Your task to perform on an android device: Search for Mexican restaurants on Maps Image 0: 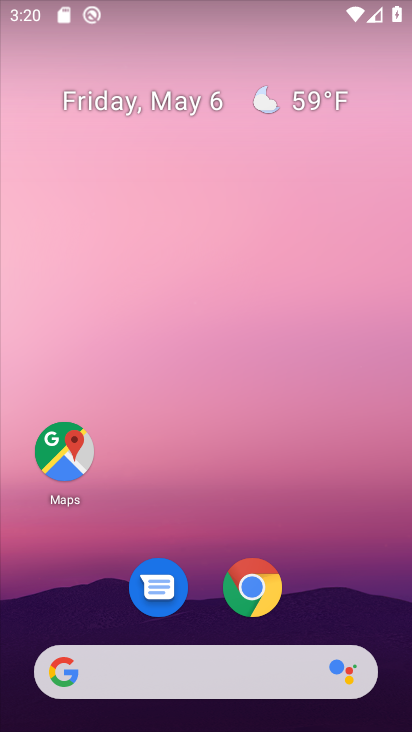
Step 0: drag from (200, 518) to (219, 56)
Your task to perform on an android device: Search for Mexican restaurants on Maps Image 1: 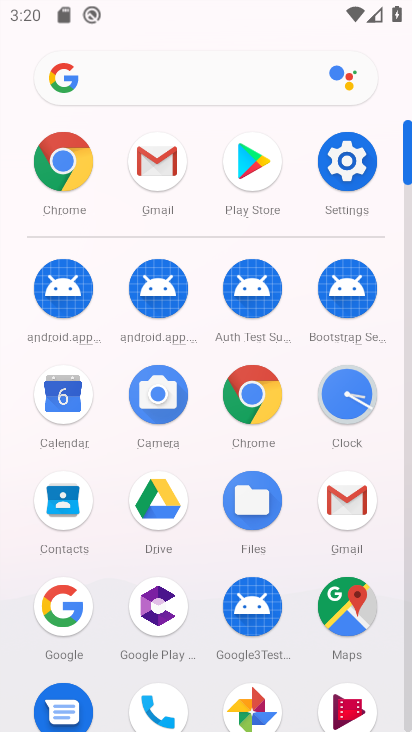
Step 1: click (336, 605)
Your task to perform on an android device: Search for Mexican restaurants on Maps Image 2: 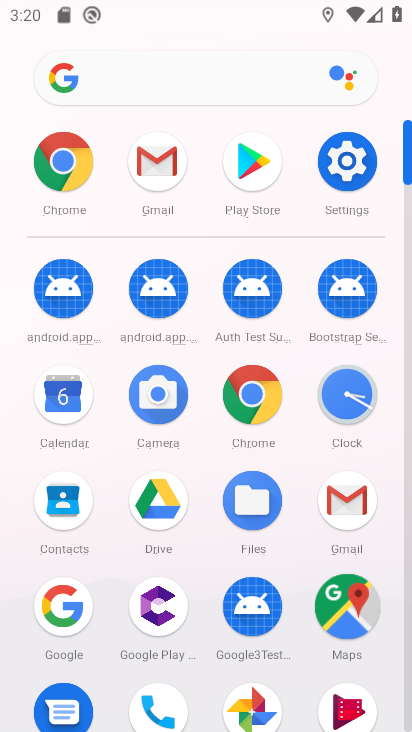
Step 2: click (336, 597)
Your task to perform on an android device: Search for Mexican restaurants on Maps Image 3: 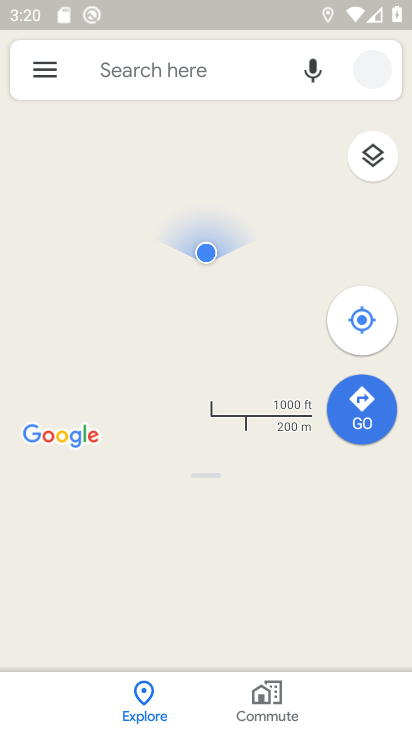
Step 3: click (175, 65)
Your task to perform on an android device: Search for Mexican restaurants on Maps Image 4: 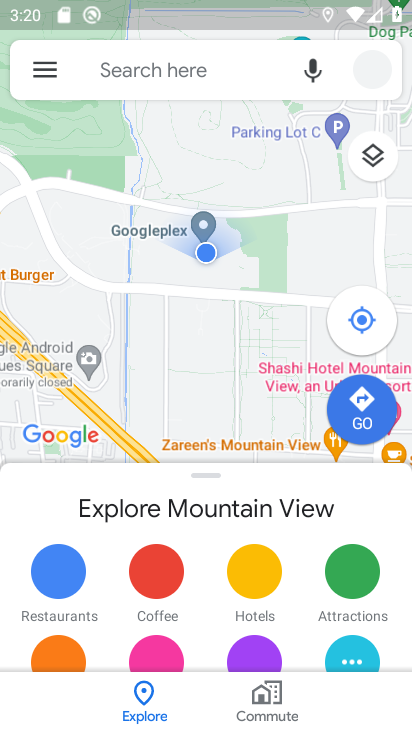
Step 4: click (178, 63)
Your task to perform on an android device: Search for Mexican restaurants on Maps Image 5: 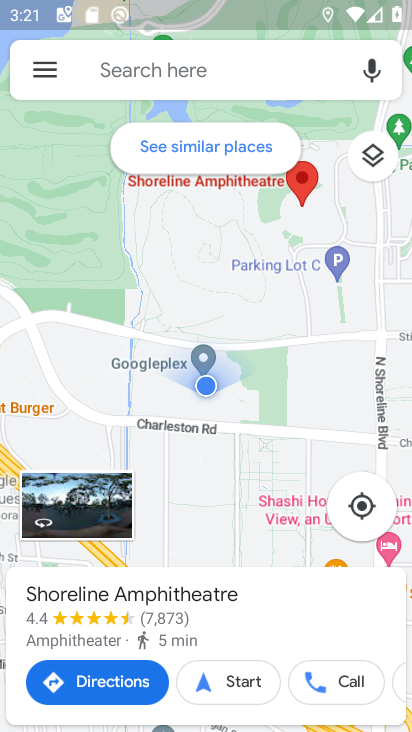
Step 5: click (178, 63)
Your task to perform on an android device: Search for Mexican restaurants on Maps Image 6: 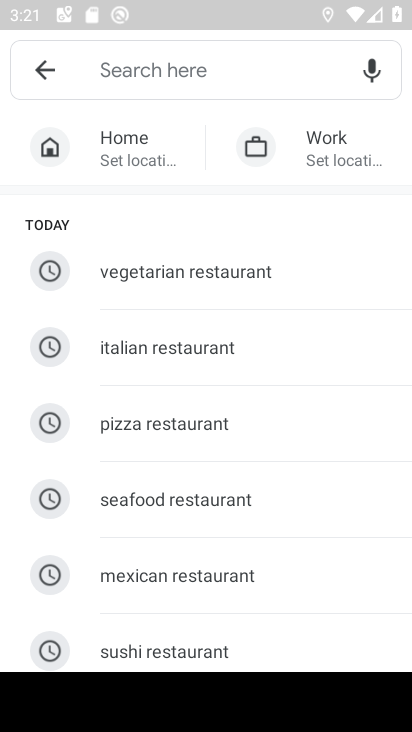
Step 6: click (199, 571)
Your task to perform on an android device: Search for Mexican restaurants on Maps Image 7: 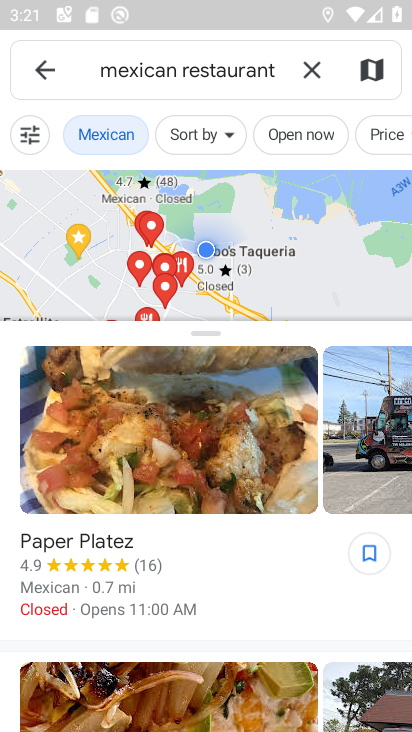
Step 7: task complete